Your task to perform on an android device: toggle priority inbox in the gmail app Image 0: 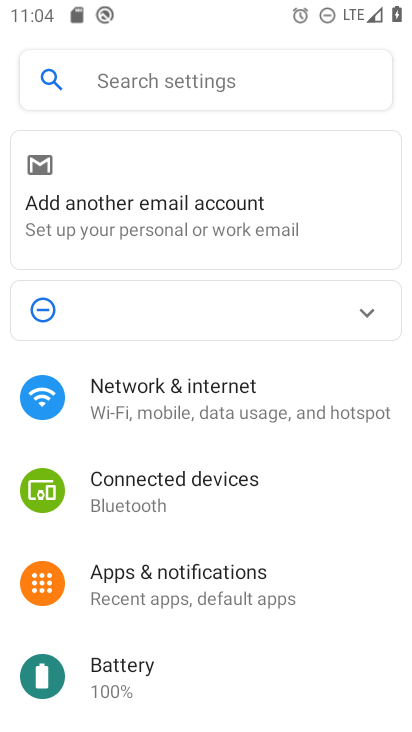
Step 0: press home button
Your task to perform on an android device: toggle priority inbox in the gmail app Image 1: 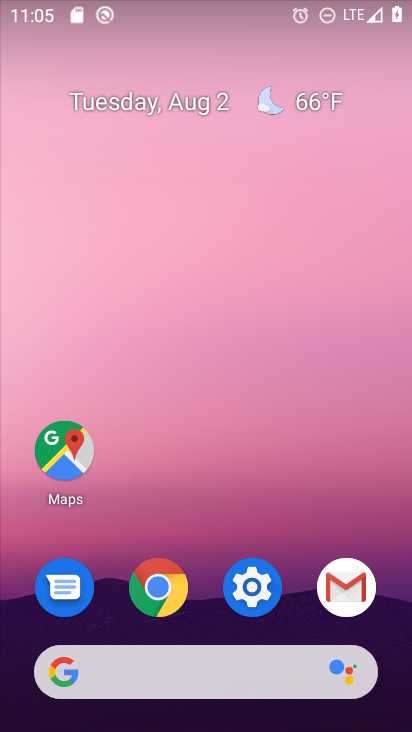
Step 1: click (356, 592)
Your task to perform on an android device: toggle priority inbox in the gmail app Image 2: 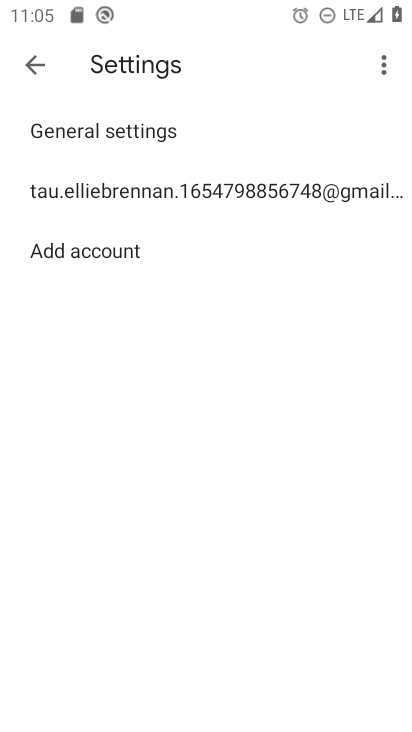
Step 2: click (150, 200)
Your task to perform on an android device: toggle priority inbox in the gmail app Image 3: 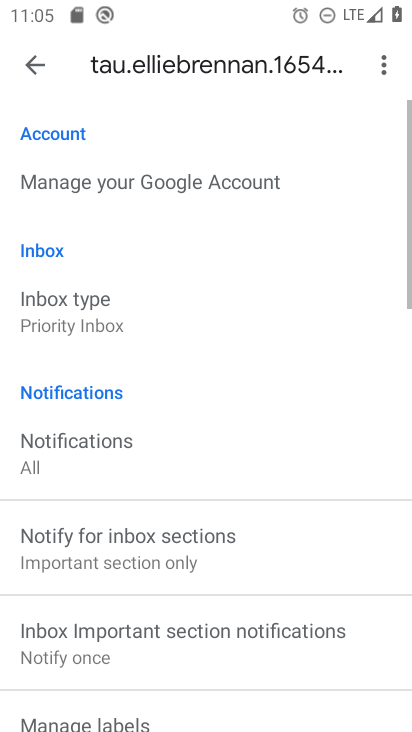
Step 3: click (67, 309)
Your task to perform on an android device: toggle priority inbox in the gmail app Image 4: 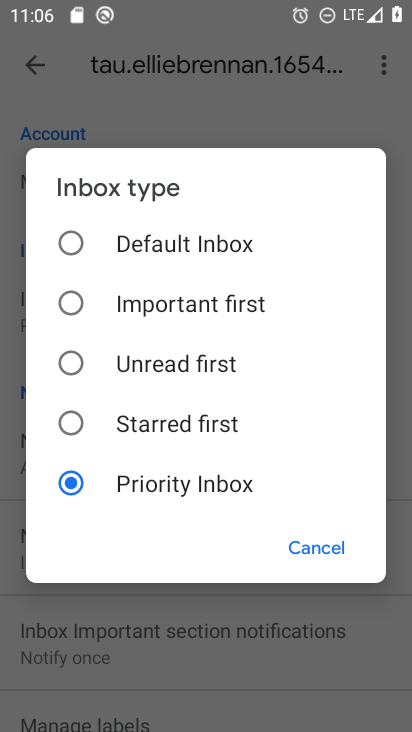
Step 4: task complete